Your task to perform on an android device: turn off location Image 0: 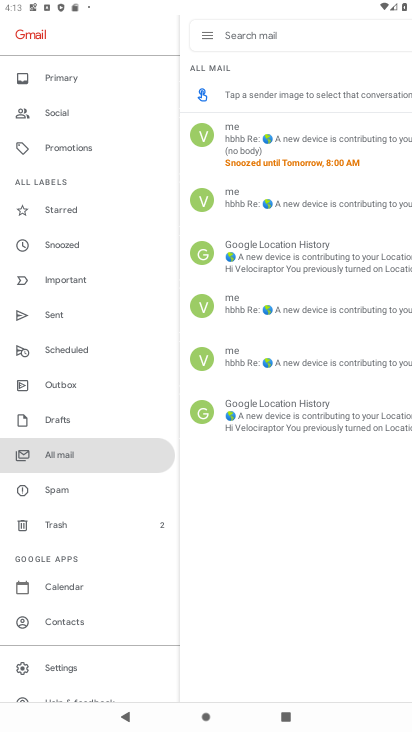
Step 0: press home button
Your task to perform on an android device: turn off location Image 1: 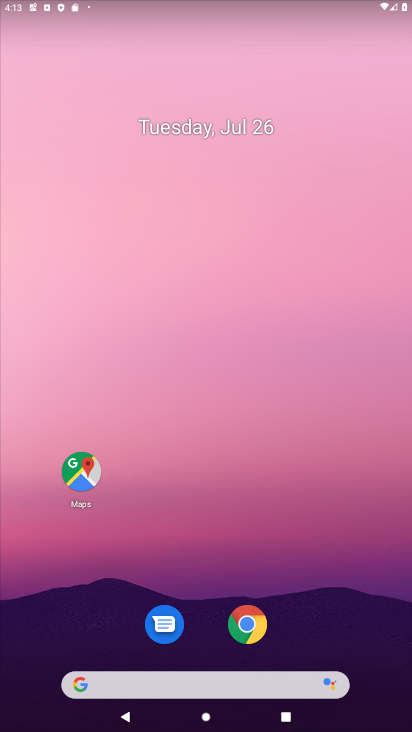
Step 1: drag from (244, 669) to (275, 1)
Your task to perform on an android device: turn off location Image 2: 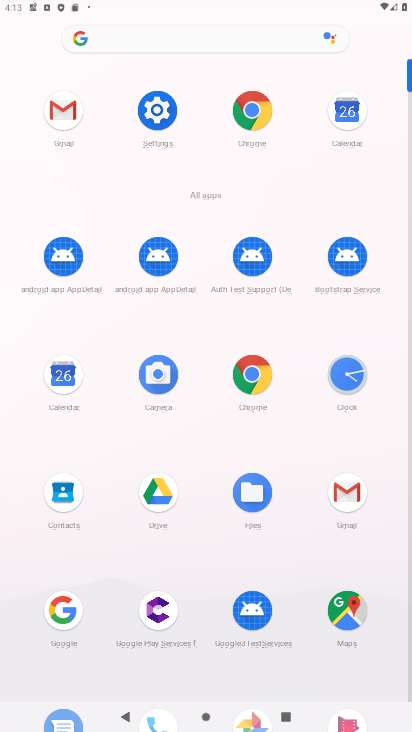
Step 2: click (262, 365)
Your task to perform on an android device: turn off location Image 3: 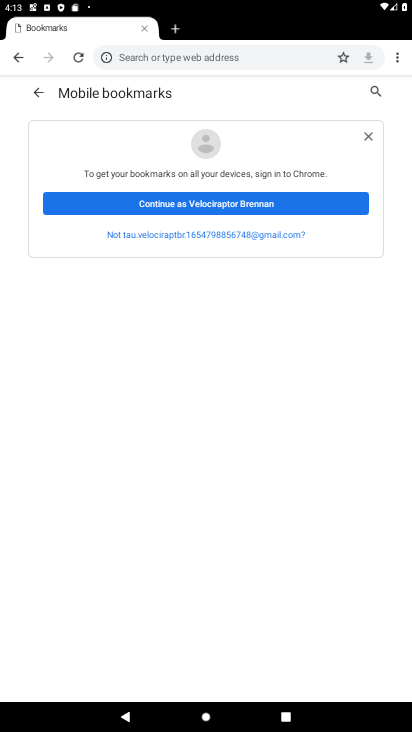
Step 3: press home button
Your task to perform on an android device: turn off location Image 4: 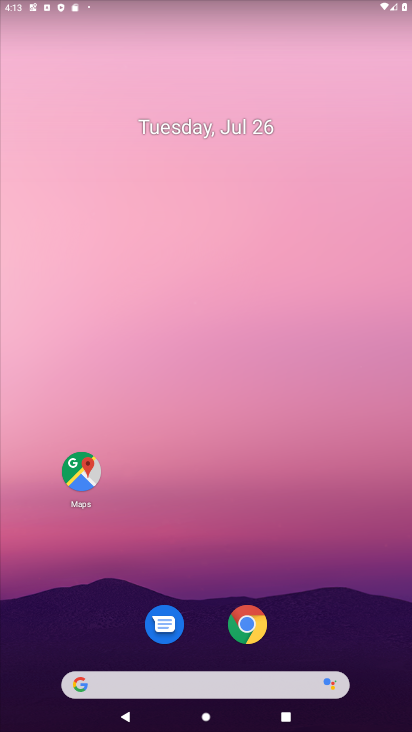
Step 4: drag from (255, 602) to (280, 2)
Your task to perform on an android device: turn off location Image 5: 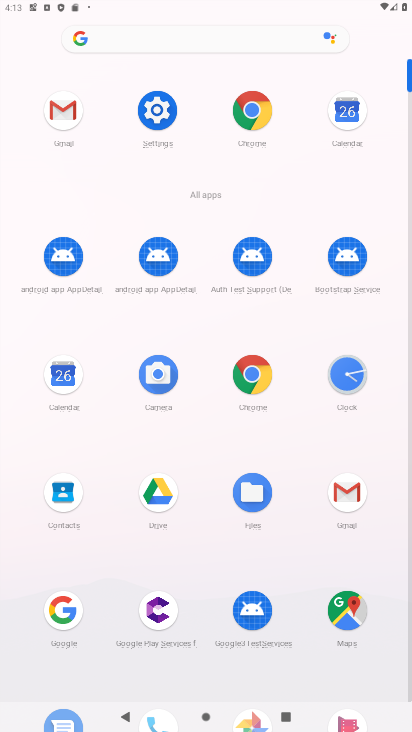
Step 5: click (163, 106)
Your task to perform on an android device: turn off location Image 6: 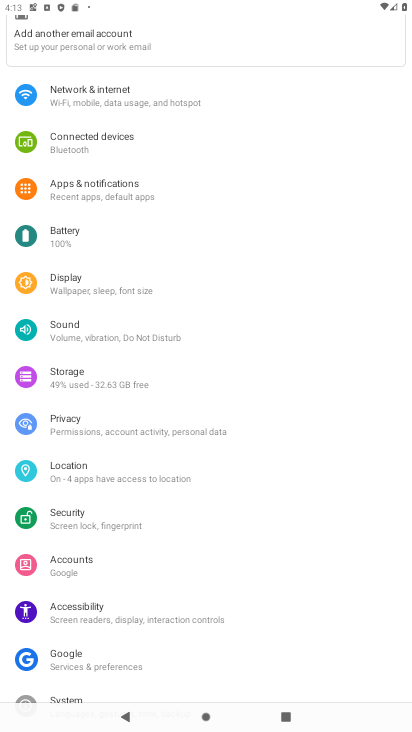
Step 6: click (99, 470)
Your task to perform on an android device: turn off location Image 7: 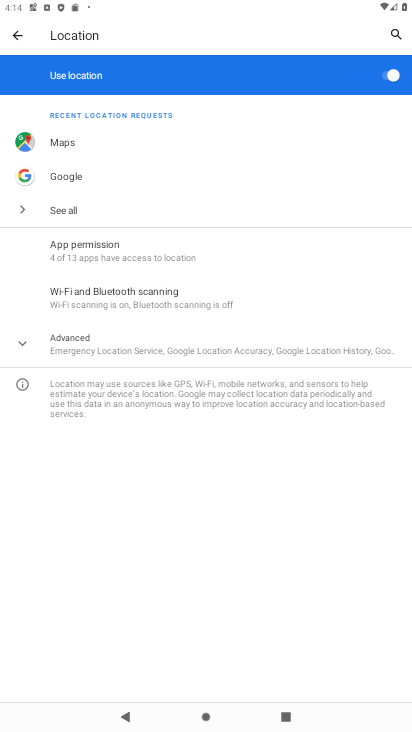
Step 7: click (161, 337)
Your task to perform on an android device: turn off location Image 8: 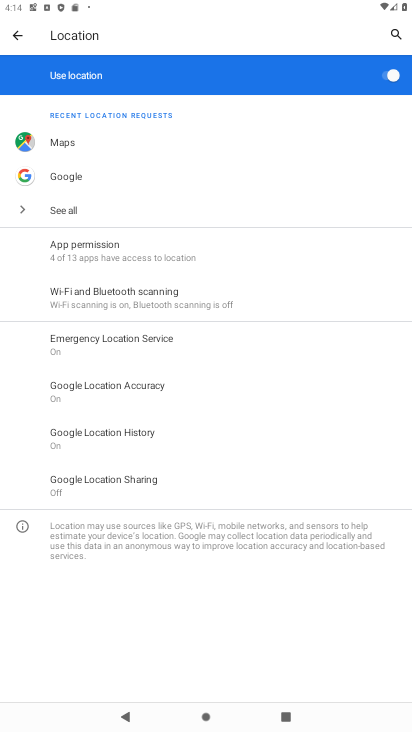
Step 8: click (383, 75)
Your task to perform on an android device: turn off location Image 9: 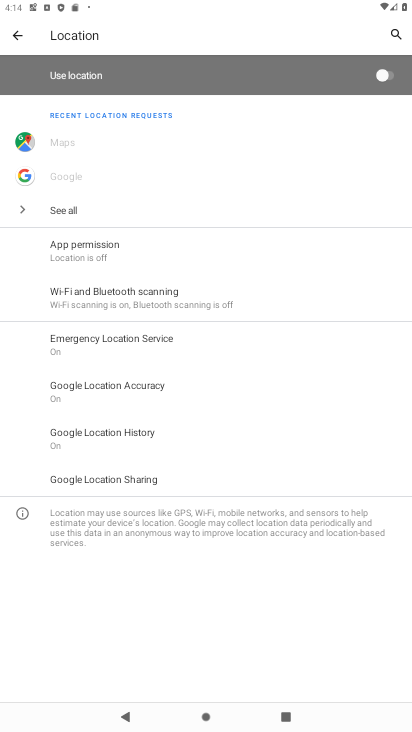
Step 9: task complete